Your task to perform on an android device: Set the phone to "Do not disturb". Image 0: 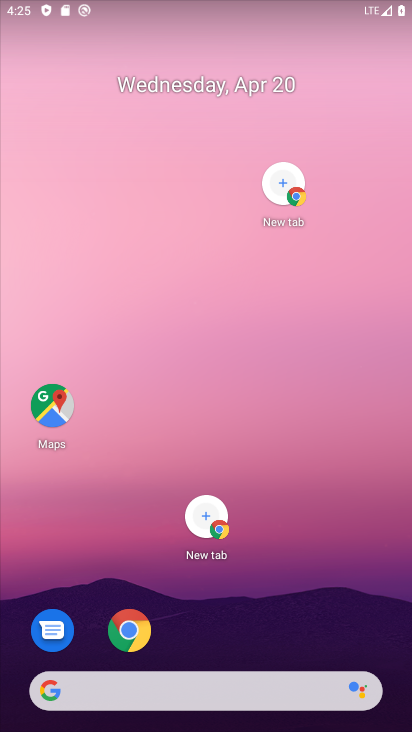
Step 0: click (167, 240)
Your task to perform on an android device: Set the phone to "Do not disturb". Image 1: 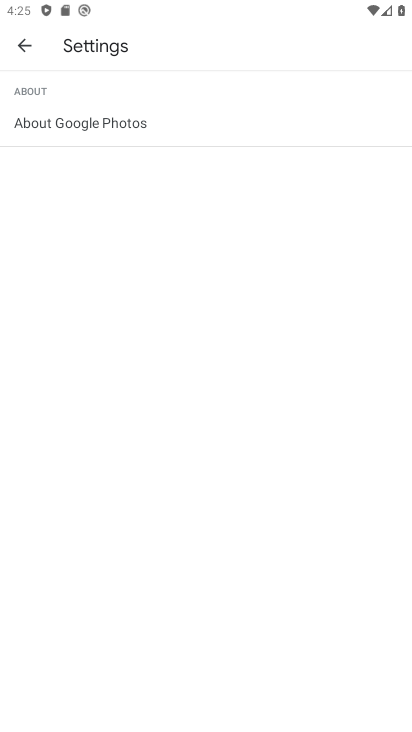
Step 1: click (13, 52)
Your task to perform on an android device: Set the phone to "Do not disturb". Image 2: 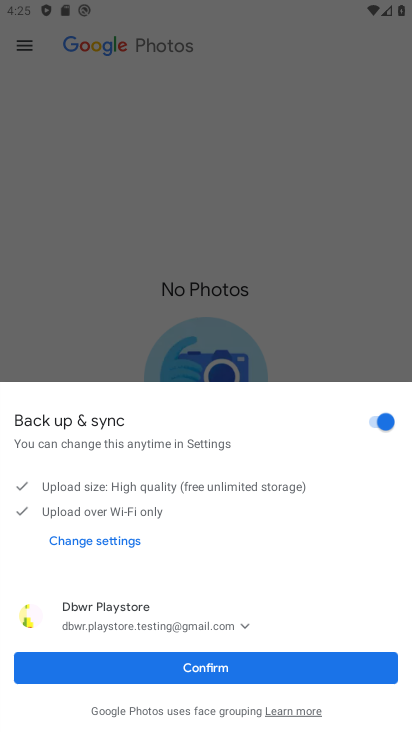
Step 2: click (217, 680)
Your task to perform on an android device: Set the phone to "Do not disturb". Image 3: 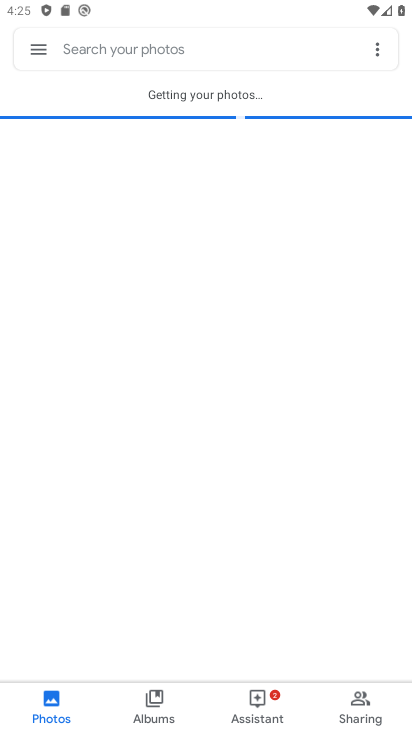
Step 3: press home button
Your task to perform on an android device: Set the phone to "Do not disturb". Image 4: 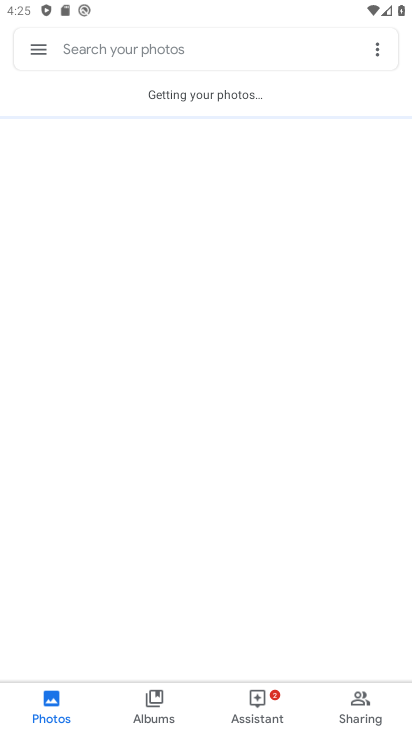
Step 4: press home button
Your task to perform on an android device: Set the phone to "Do not disturb". Image 5: 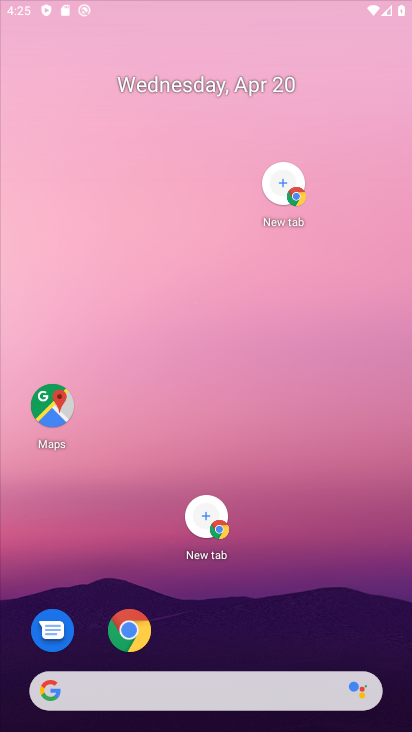
Step 5: press home button
Your task to perform on an android device: Set the phone to "Do not disturb". Image 6: 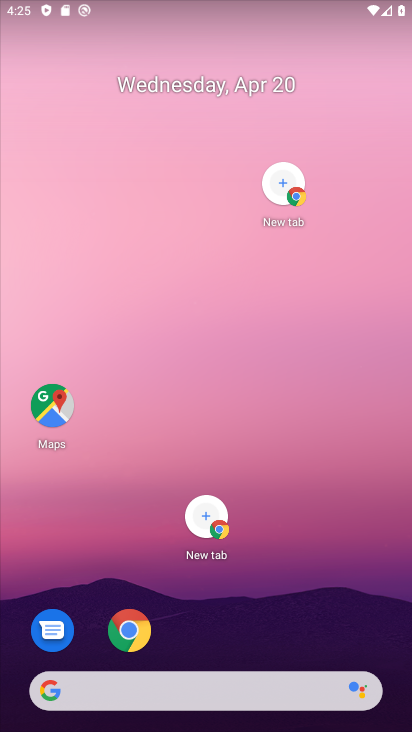
Step 6: drag from (329, 627) to (96, 79)
Your task to perform on an android device: Set the phone to "Do not disturb". Image 7: 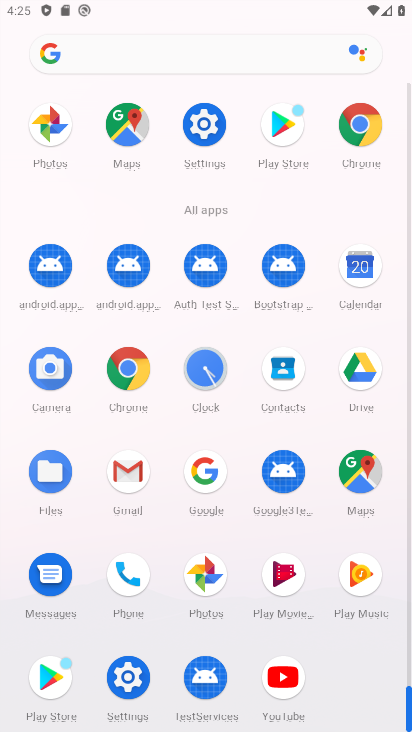
Step 7: click (207, 133)
Your task to perform on an android device: Set the phone to "Do not disturb". Image 8: 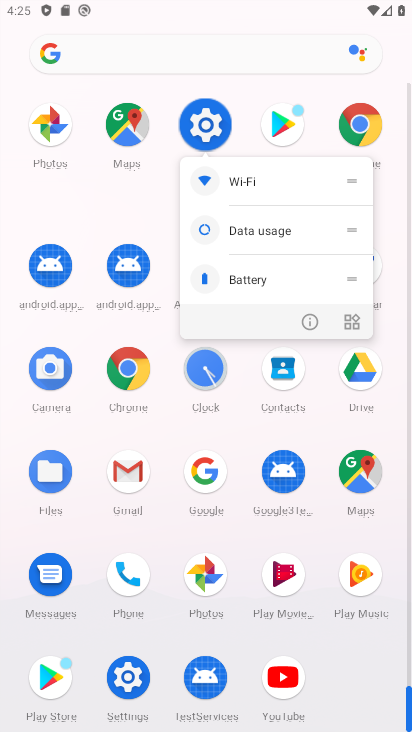
Step 8: click (207, 133)
Your task to perform on an android device: Set the phone to "Do not disturb". Image 9: 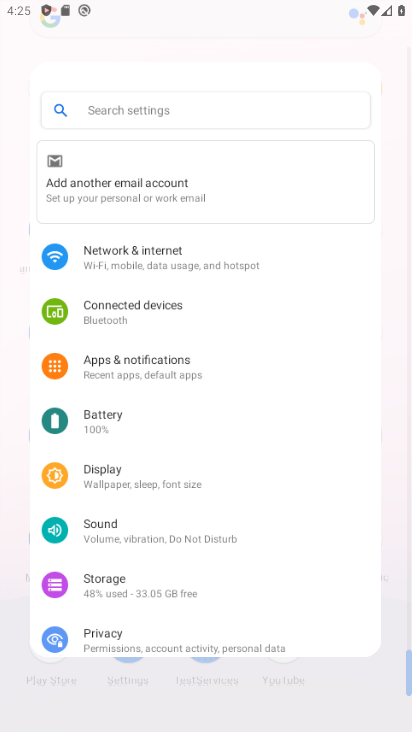
Step 9: click (207, 133)
Your task to perform on an android device: Set the phone to "Do not disturb". Image 10: 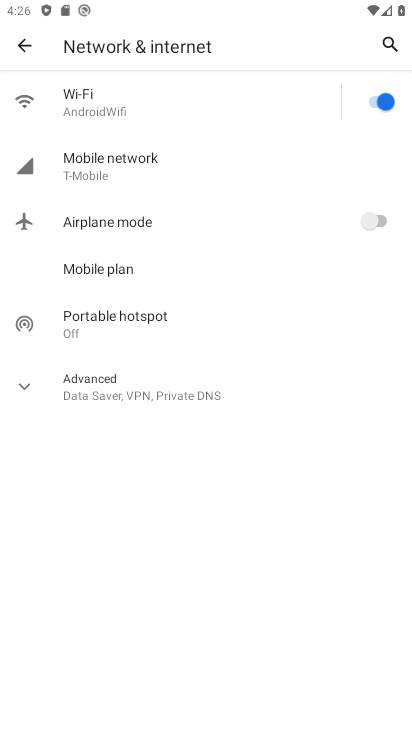
Step 10: click (20, 43)
Your task to perform on an android device: Set the phone to "Do not disturb". Image 11: 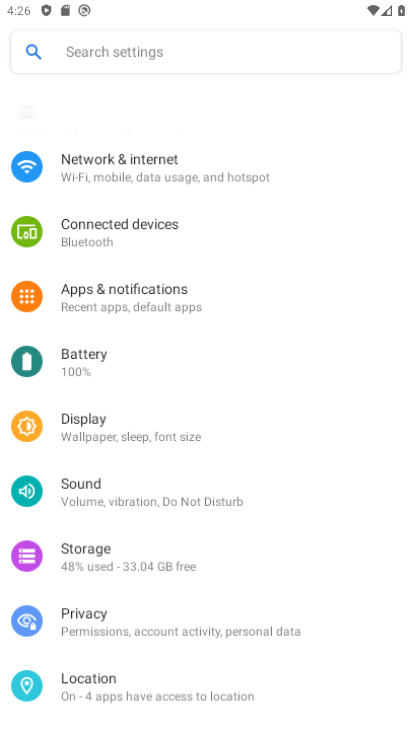
Step 11: click (20, 43)
Your task to perform on an android device: Set the phone to "Do not disturb". Image 12: 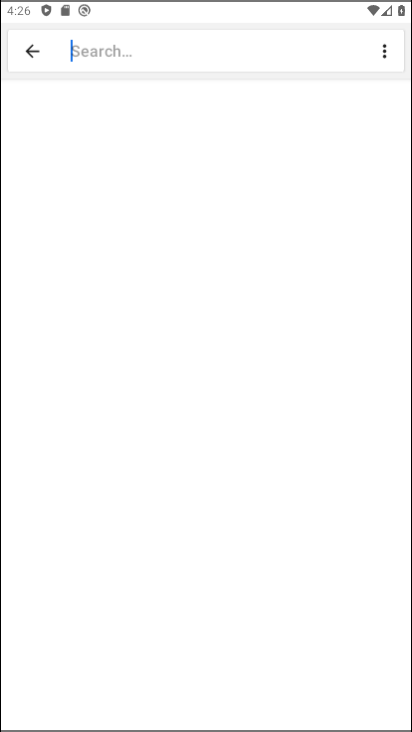
Step 12: click (92, 539)
Your task to perform on an android device: Set the phone to "Do not disturb". Image 13: 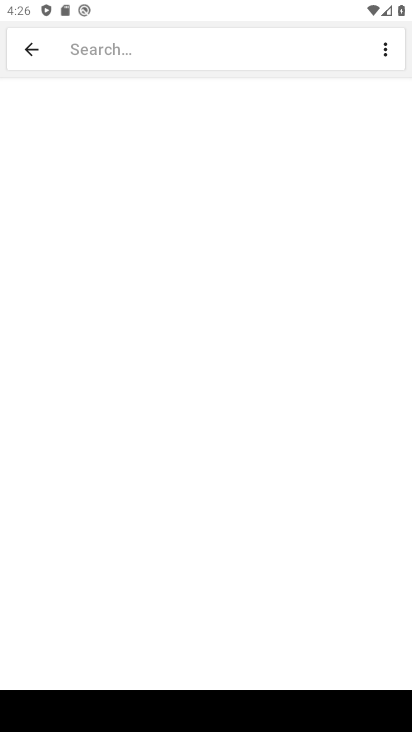
Step 13: click (112, 531)
Your task to perform on an android device: Set the phone to "Do not disturb". Image 14: 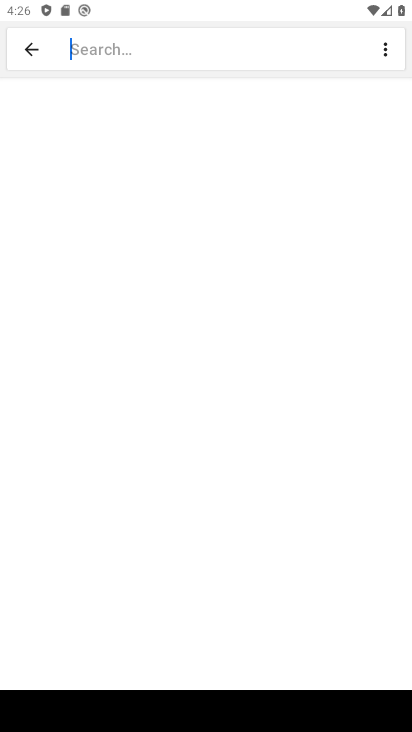
Step 14: click (25, 45)
Your task to perform on an android device: Set the phone to "Do not disturb". Image 15: 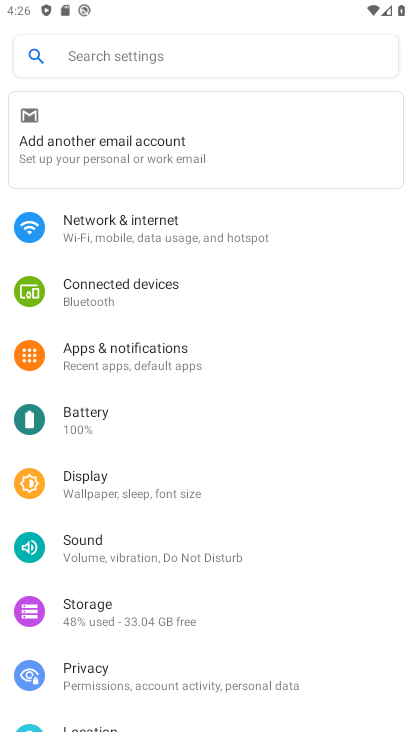
Step 15: click (86, 559)
Your task to perform on an android device: Set the phone to "Do not disturb". Image 16: 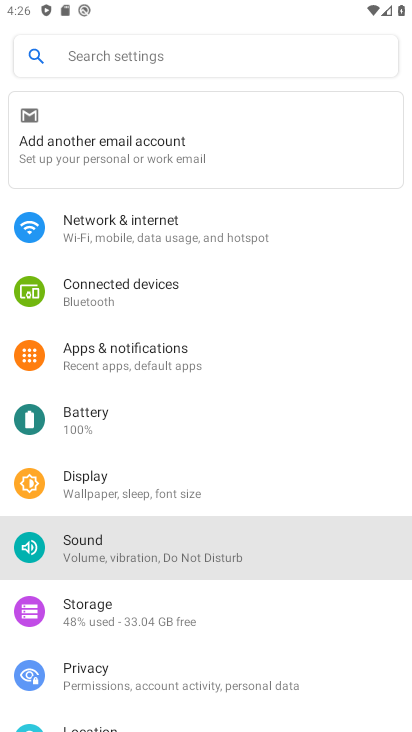
Step 16: click (86, 559)
Your task to perform on an android device: Set the phone to "Do not disturb". Image 17: 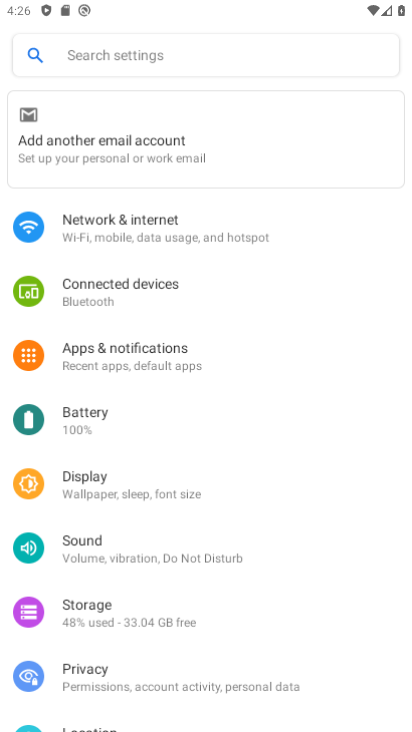
Step 17: click (81, 558)
Your task to perform on an android device: Set the phone to "Do not disturb". Image 18: 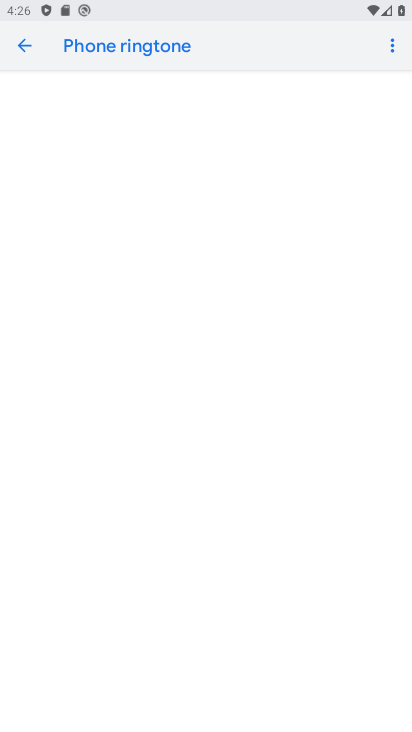
Step 18: click (26, 46)
Your task to perform on an android device: Set the phone to "Do not disturb". Image 19: 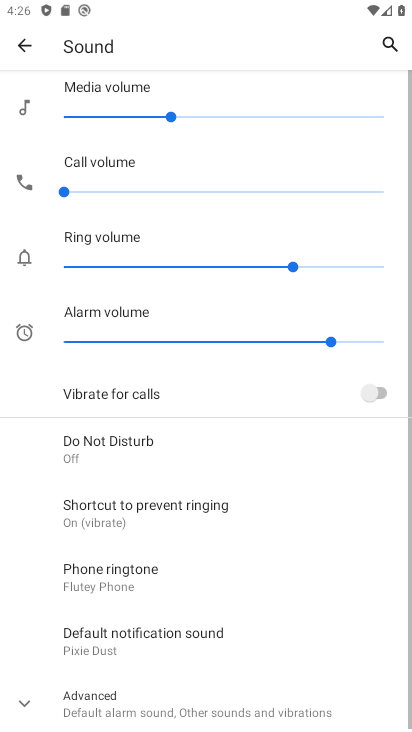
Step 19: click (23, 47)
Your task to perform on an android device: Set the phone to "Do not disturb". Image 20: 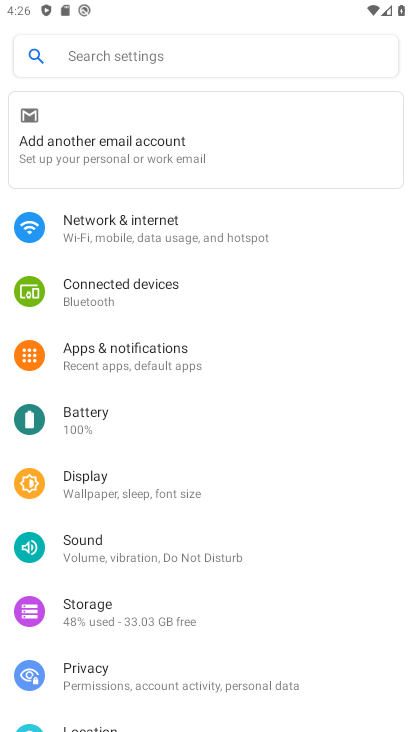
Step 20: click (113, 557)
Your task to perform on an android device: Set the phone to "Do not disturb". Image 21: 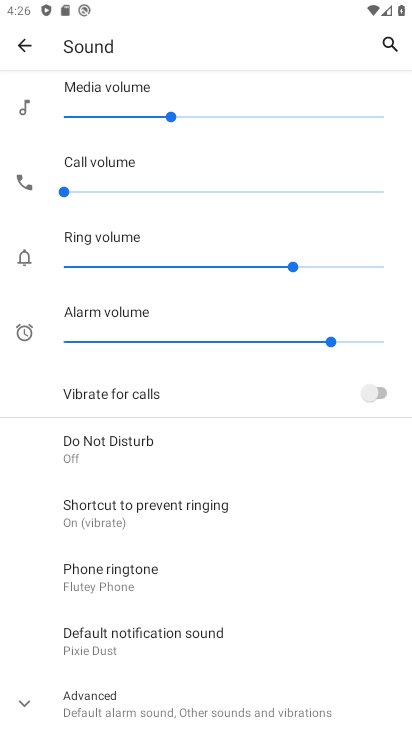
Step 21: drag from (173, 600) to (271, 250)
Your task to perform on an android device: Set the phone to "Do not disturb". Image 22: 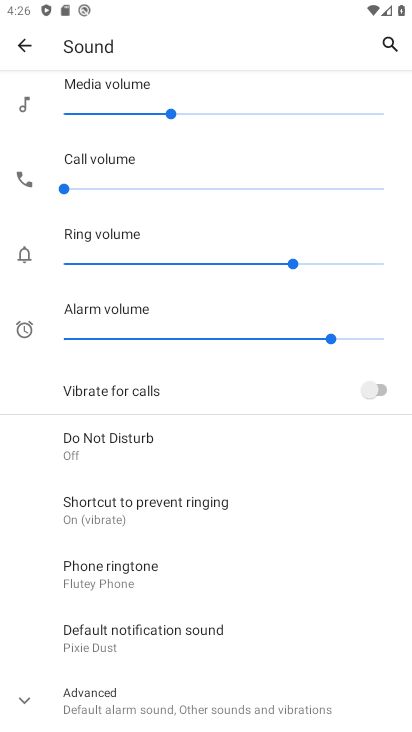
Step 22: drag from (188, 536) to (137, 317)
Your task to perform on an android device: Set the phone to "Do not disturb". Image 23: 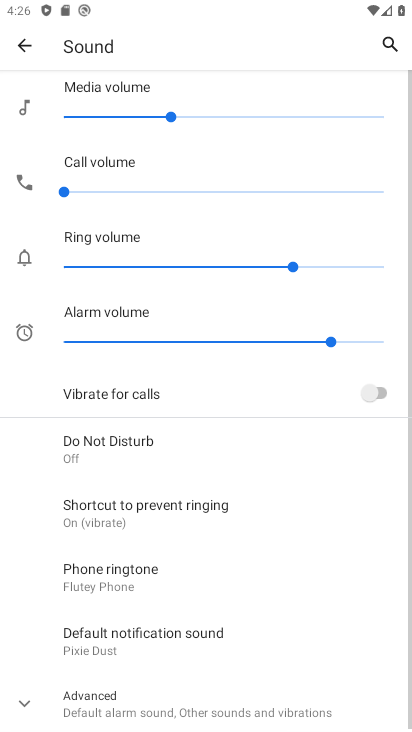
Step 23: click (112, 442)
Your task to perform on an android device: Set the phone to "Do not disturb". Image 24: 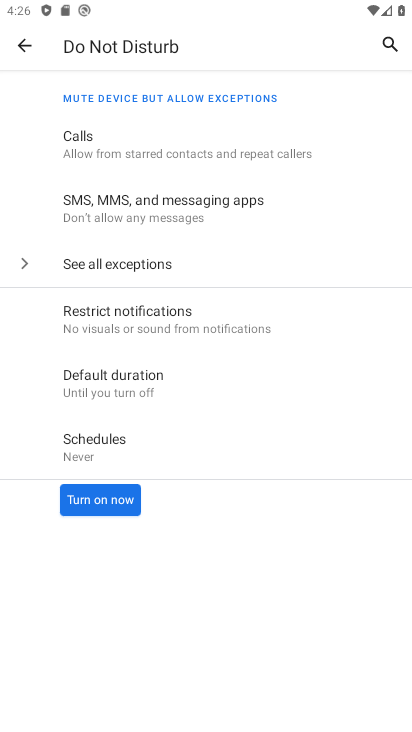
Step 24: click (70, 501)
Your task to perform on an android device: Set the phone to "Do not disturb". Image 25: 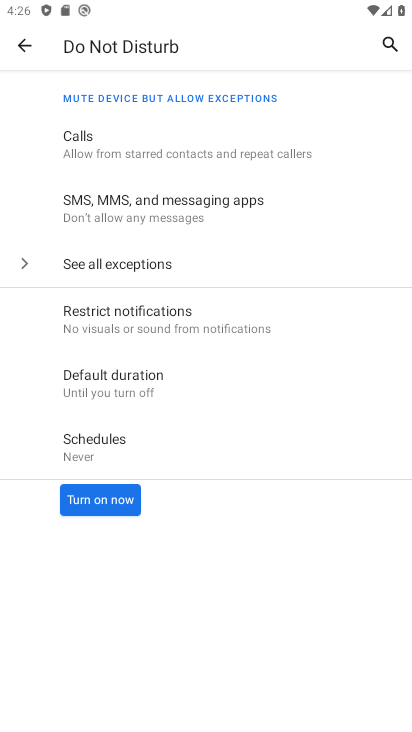
Step 25: click (70, 501)
Your task to perform on an android device: Set the phone to "Do not disturb". Image 26: 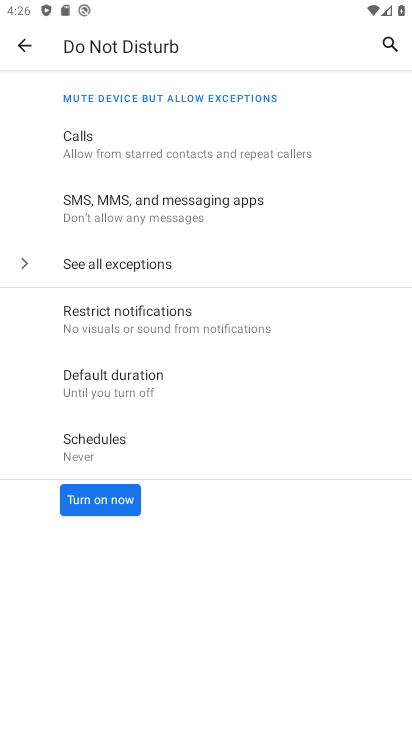
Step 26: click (104, 495)
Your task to perform on an android device: Set the phone to "Do not disturb". Image 27: 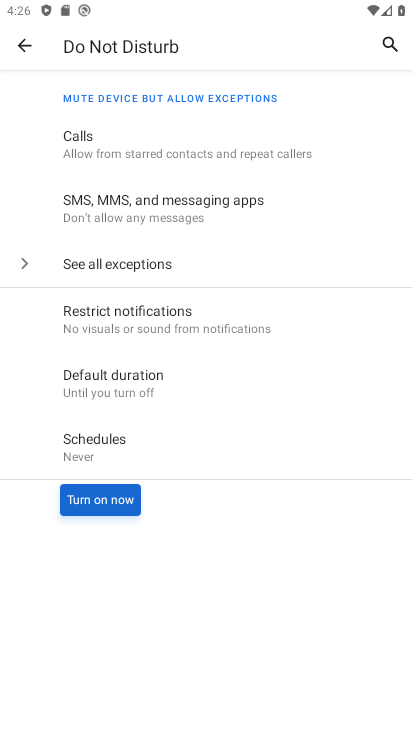
Step 27: click (104, 501)
Your task to perform on an android device: Set the phone to "Do not disturb". Image 28: 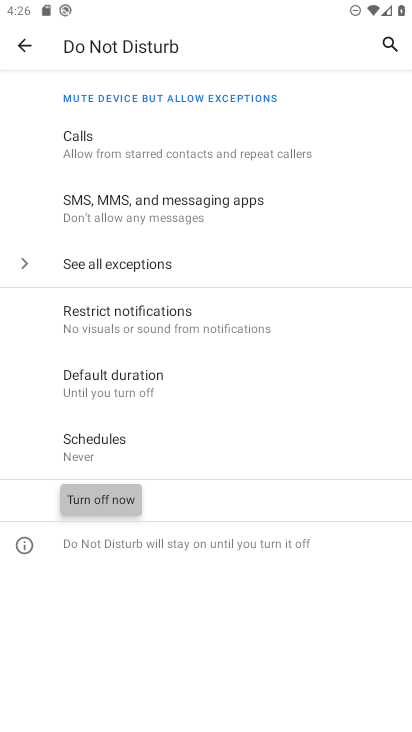
Step 28: click (104, 501)
Your task to perform on an android device: Set the phone to "Do not disturb". Image 29: 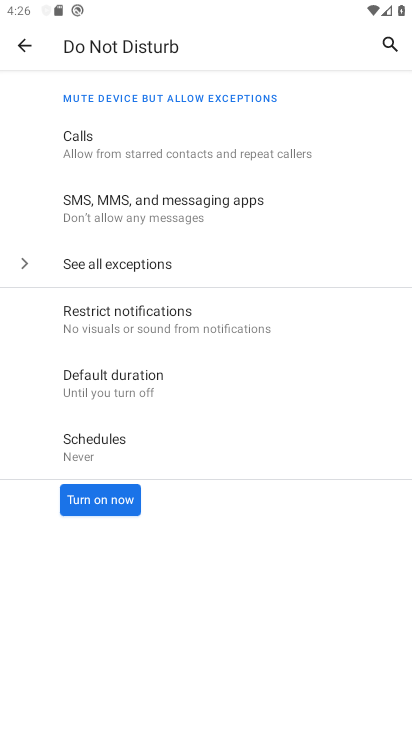
Step 29: click (104, 501)
Your task to perform on an android device: Set the phone to "Do not disturb". Image 30: 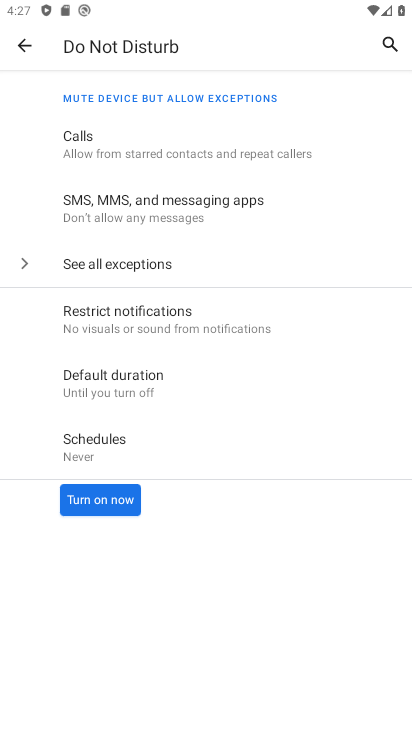
Step 30: click (116, 494)
Your task to perform on an android device: Set the phone to "Do not disturb". Image 31: 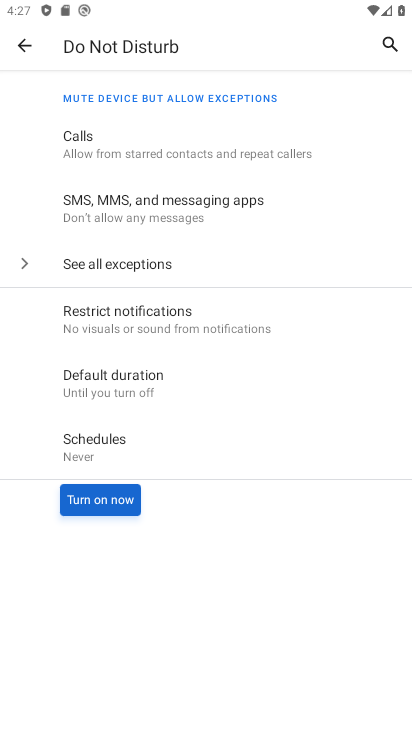
Step 31: click (115, 494)
Your task to perform on an android device: Set the phone to "Do not disturb". Image 32: 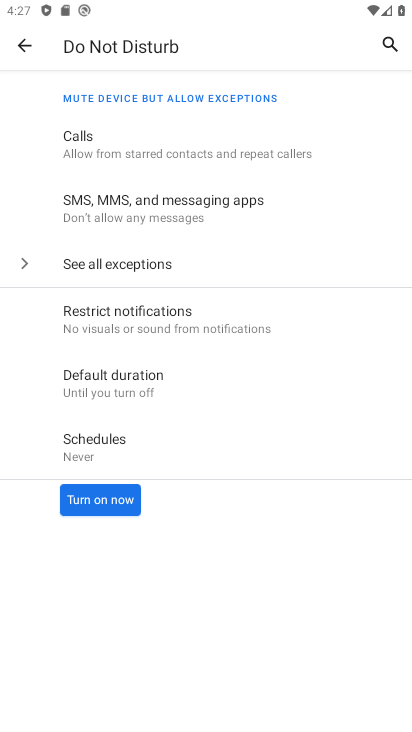
Step 32: task complete